Your task to perform on an android device: Open the phone app and click the voicemail tab. Image 0: 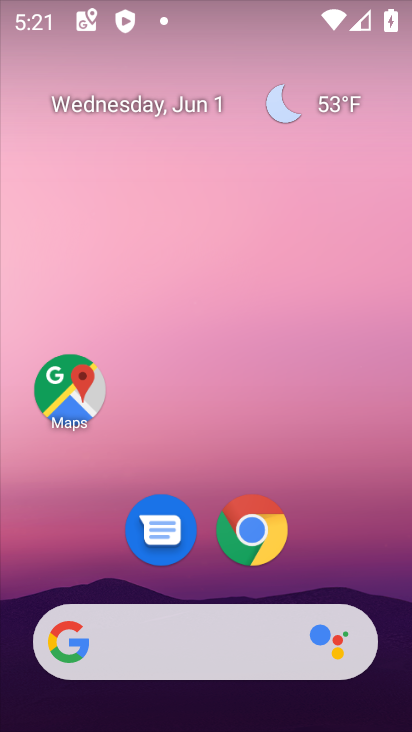
Step 0: drag from (262, 582) to (236, 111)
Your task to perform on an android device: Open the phone app and click the voicemail tab. Image 1: 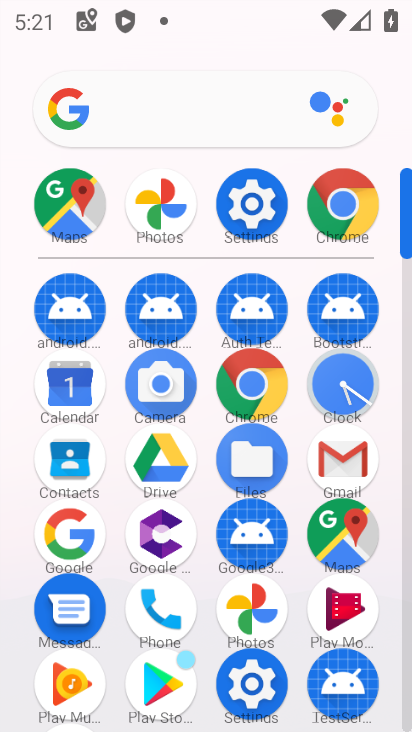
Step 1: click (164, 607)
Your task to perform on an android device: Open the phone app and click the voicemail tab. Image 2: 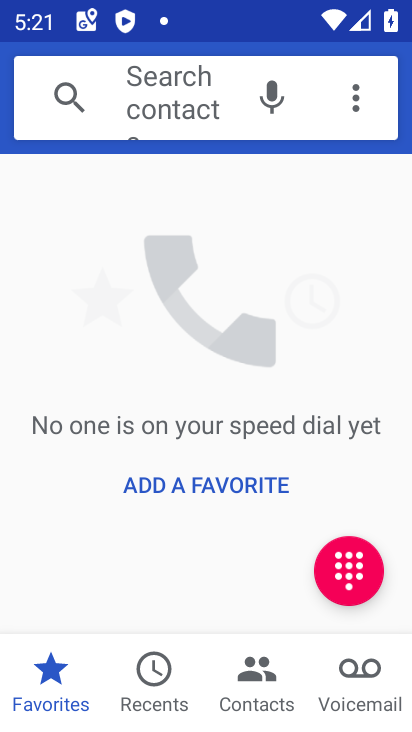
Step 2: click (355, 694)
Your task to perform on an android device: Open the phone app and click the voicemail tab. Image 3: 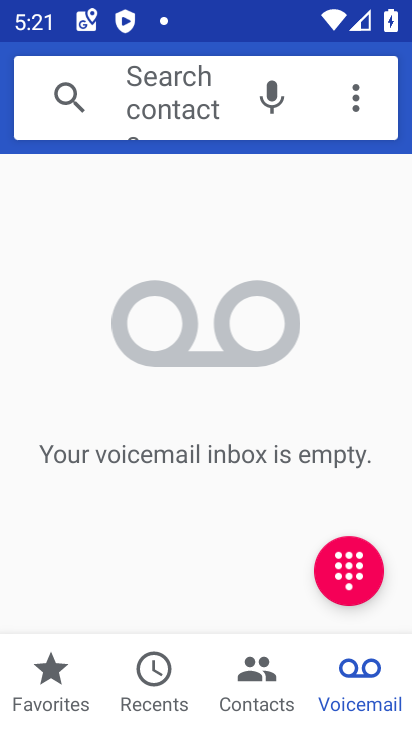
Step 3: task complete